Your task to perform on an android device: Open settings on Google Maps Image 0: 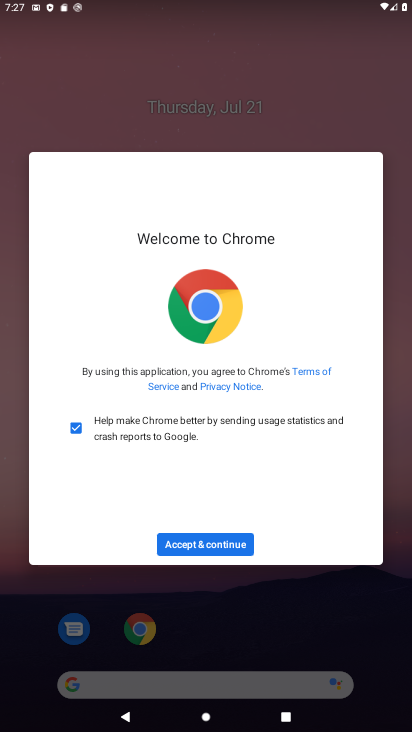
Step 0: press home button
Your task to perform on an android device: Open settings on Google Maps Image 1: 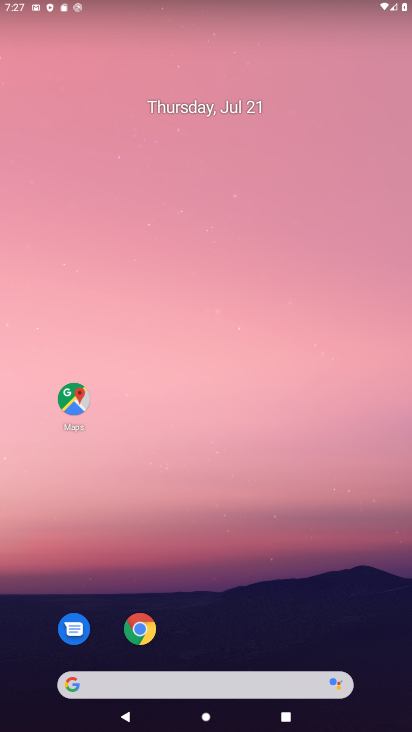
Step 1: drag from (27, 630) to (237, 202)
Your task to perform on an android device: Open settings on Google Maps Image 2: 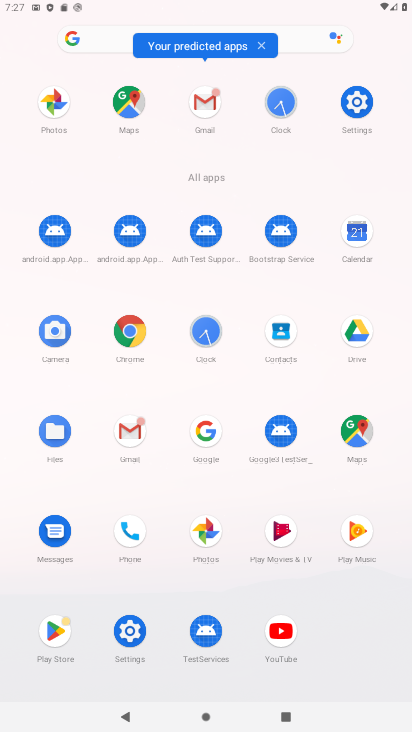
Step 2: click (366, 431)
Your task to perform on an android device: Open settings on Google Maps Image 3: 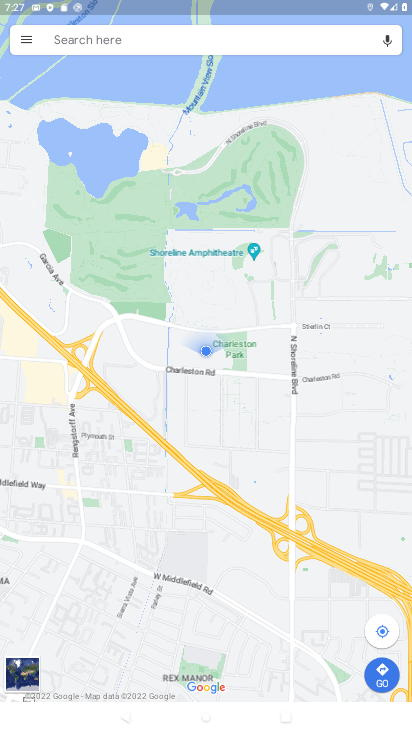
Step 3: click (25, 43)
Your task to perform on an android device: Open settings on Google Maps Image 4: 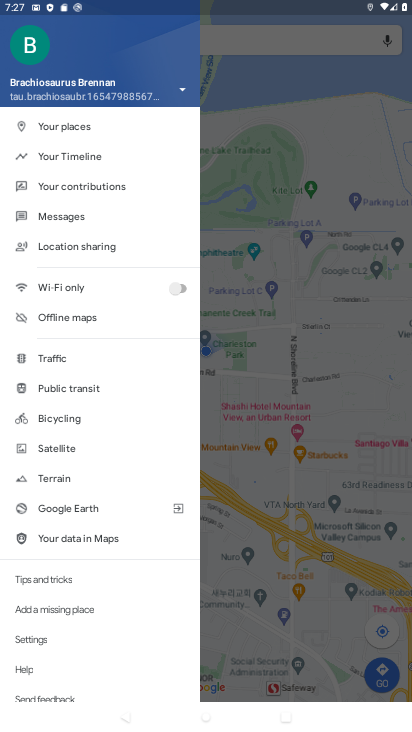
Step 4: drag from (42, 605) to (167, 127)
Your task to perform on an android device: Open settings on Google Maps Image 5: 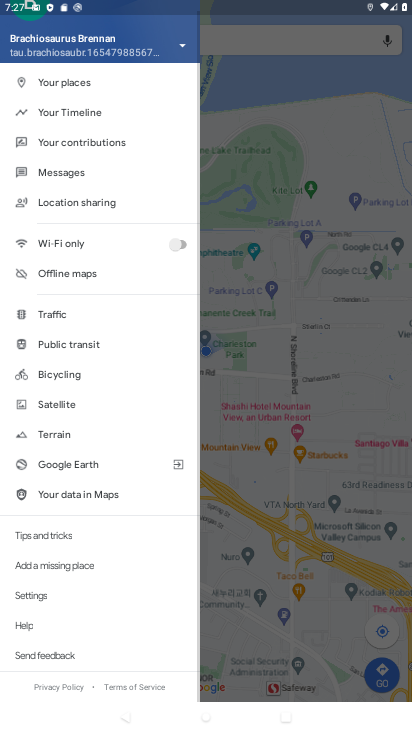
Step 5: click (39, 592)
Your task to perform on an android device: Open settings on Google Maps Image 6: 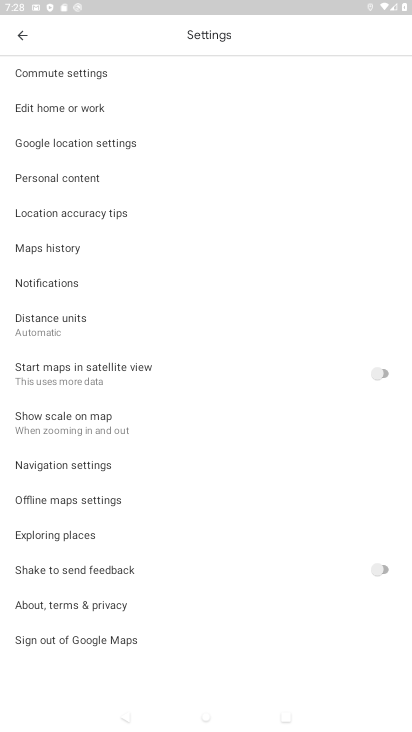
Step 6: task complete